Your task to perform on an android device: Go to wifi settings Image 0: 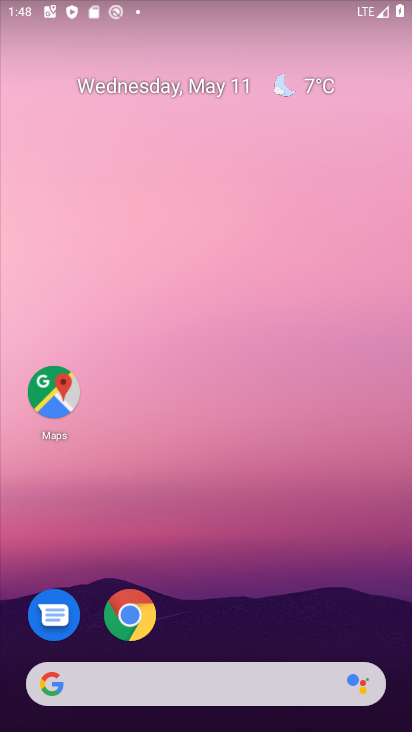
Step 0: drag from (269, 632) to (294, 147)
Your task to perform on an android device: Go to wifi settings Image 1: 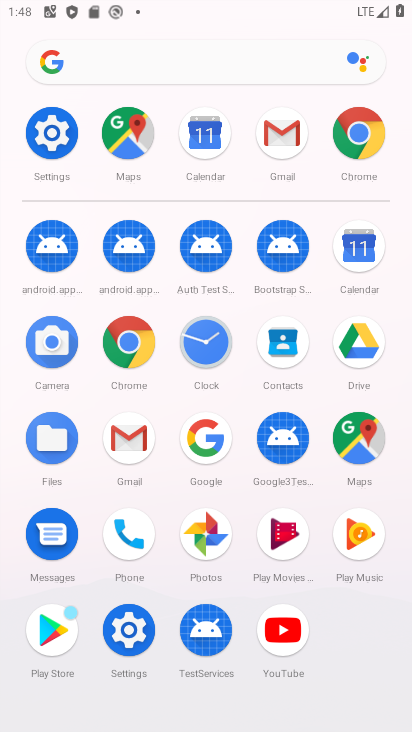
Step 1: click (59, 131)
Your task to perform on an android device: Go to wifi settings Image 2: 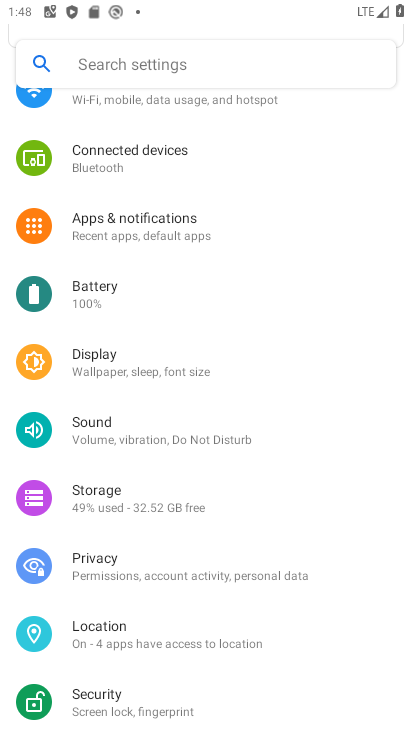
Step 2: drag from (179, 164) to (248, 493)
Your task to perform on an android device: Go to wifi settings Image 3: 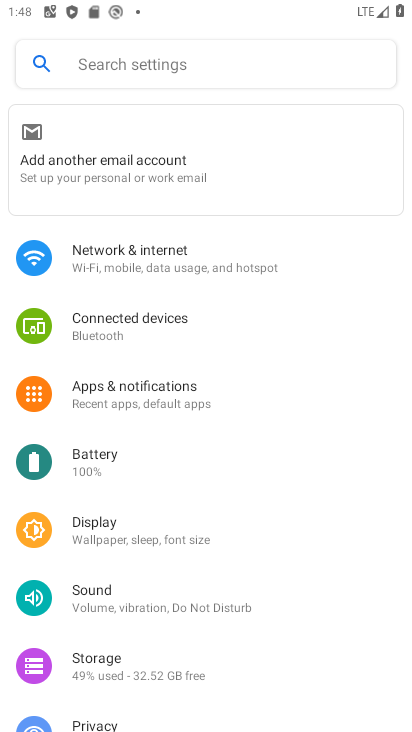
Step 3: click (176, 278)
Your task to perform on an android device: Go to wifi settings Image 4: 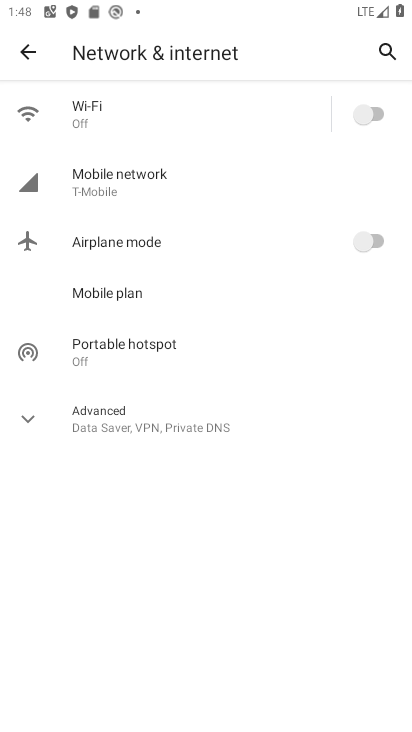
Step 4: click (375, 110)
Your task to perform on an android device: Go to wifi settings Image 5: 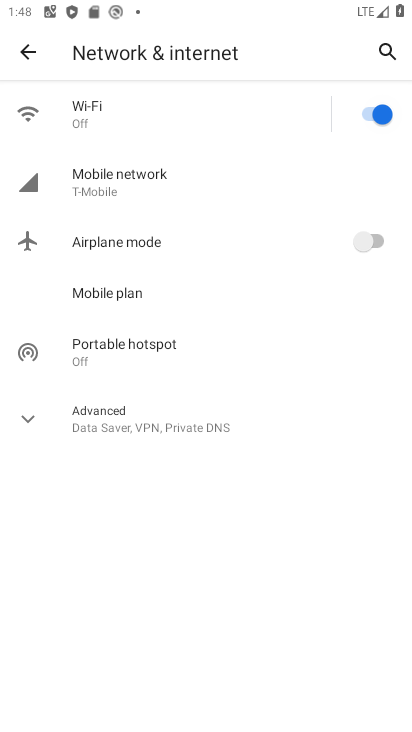
Step 5: click (312, 113)
Your task to perform on an android device: Go to wifi settings Image 6: 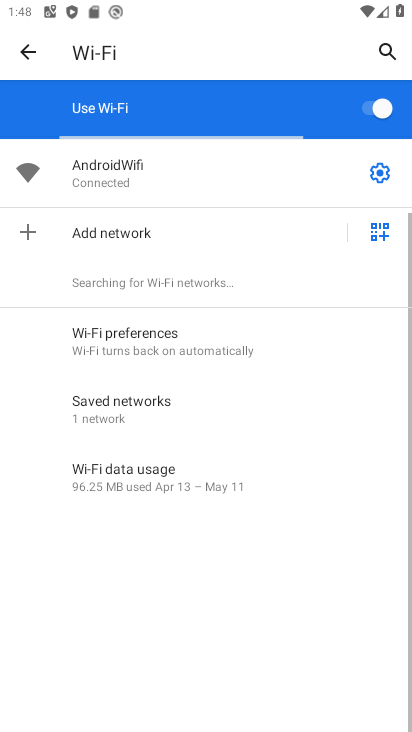
Step 6: click (377, 165)
Your task to perform on an android device: Go to wifi settings Image 7: 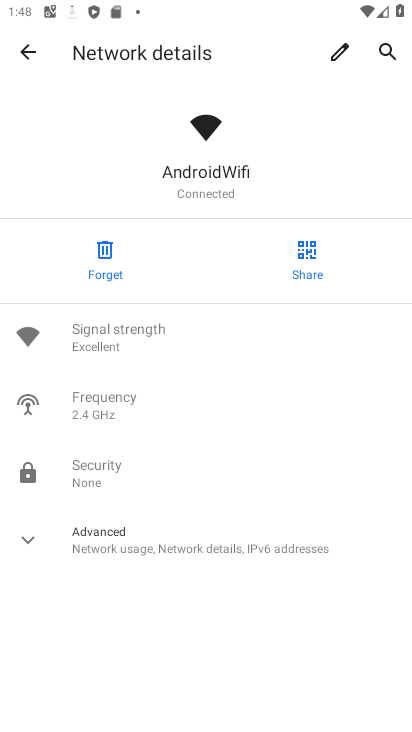
Step 7: task complete